Your task to perform on an android device: turn vacation reply on in the gmail app Image 0: 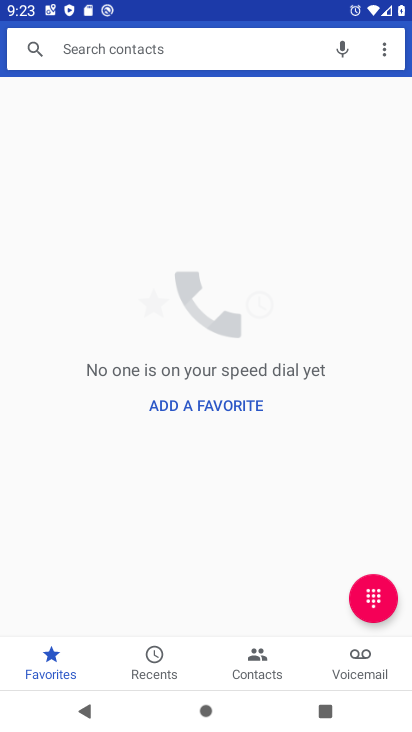
Step 0: press home button
Your task to perform on an android device: turn vacation reply on in the gmail app Image 1: 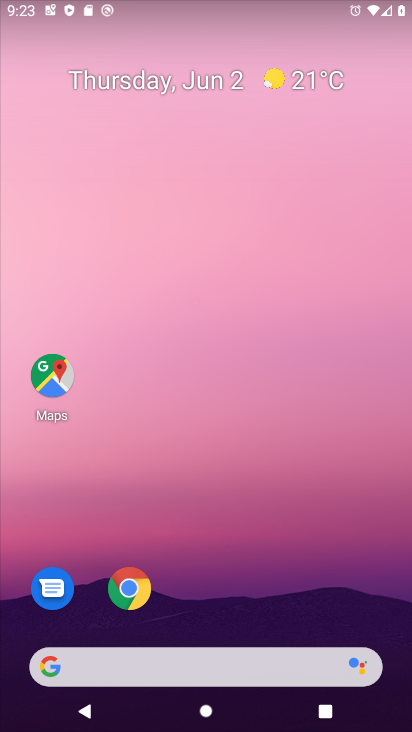
Step 1: drag from (211, 657) to (228, 105)
Your task to perform on an android device: turn vacation reply on in the gmail app Image 2: 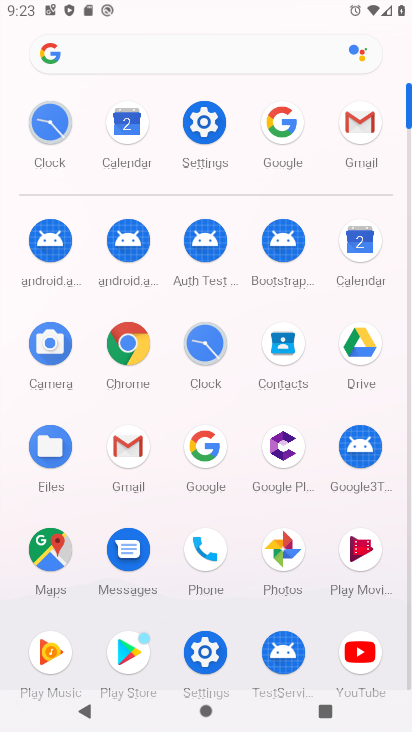
Step 2: click (137, 444)
Your task to perform on an android device: turn vacation reply on in the gmail app Image 3: 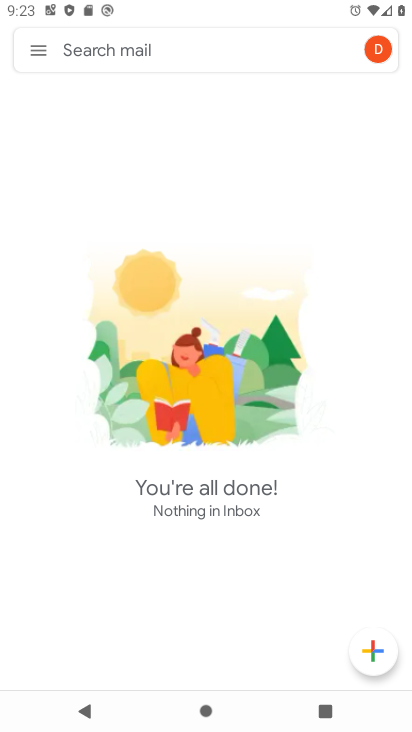
Step 3: click (24, 54)
Your task to perform on an android device: turn vacation reply on in the gmail app Image 4: 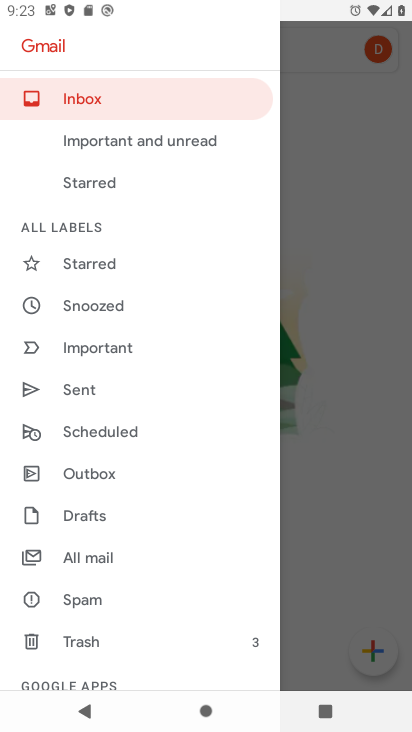
Step 4: drag from (117, 586) to (137, 76)
Your task to perform on an android device: turn vacation reply on in the gmail app Image 5: 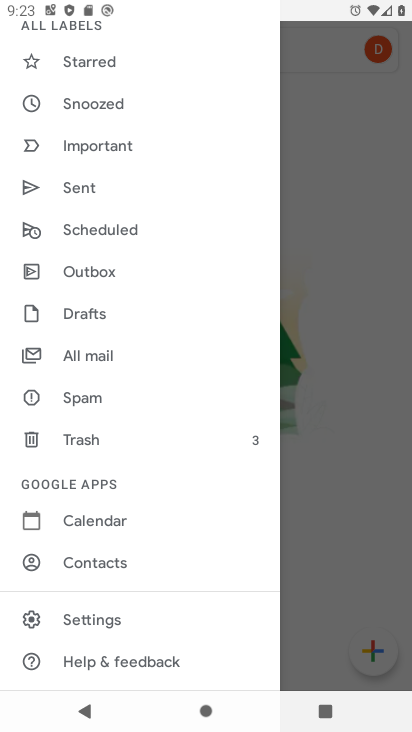
Step 5: click (98, 610)
Your task to perform on an android device: turn vacation reply on in the gmail app Image 6: 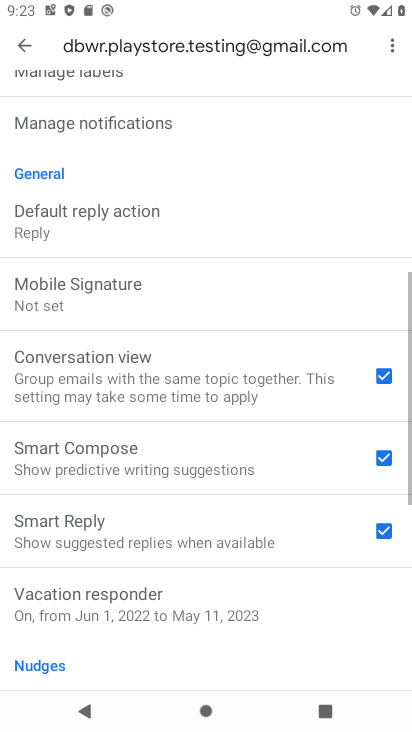
Step 6: drag from (158, 603) to (177, 315)
Your task to perform on an android device: turn vacation reply on in the gmail app Image 7: 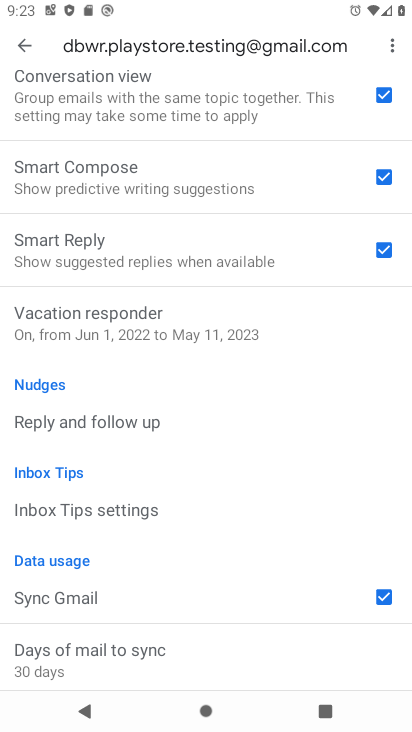
Step 7: click (114, 336)
Your task to perform on an android device: turn vacation reply on in the gmail app Image 8: 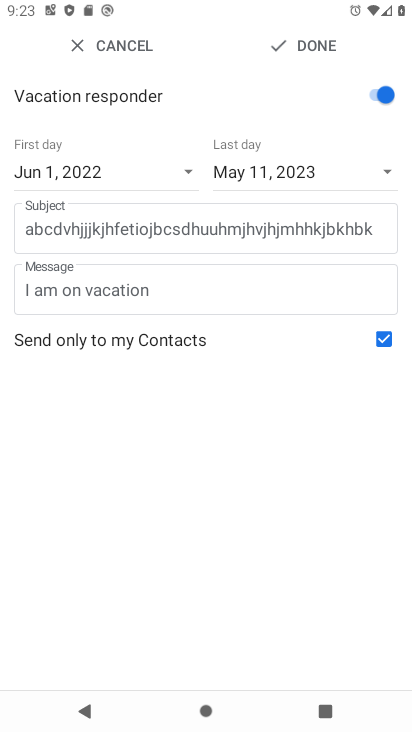
Step 8: click (293, 51)
Your task to perform on an android device: turn vacation reply on in the gmail app Image 9: 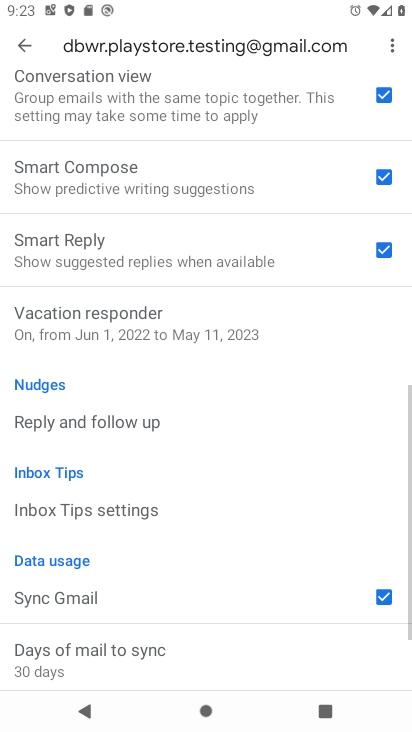
Step 9: task complete